Your task to perform on an android device: empty trash in google photos Image 0: 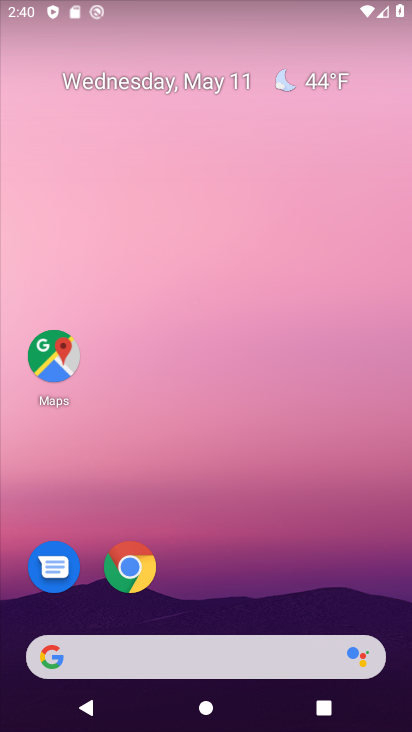
Step 0: drag from (226, 473) to (245, 39)
Your task to perform on an android device: empty trash in google photos Image 1: 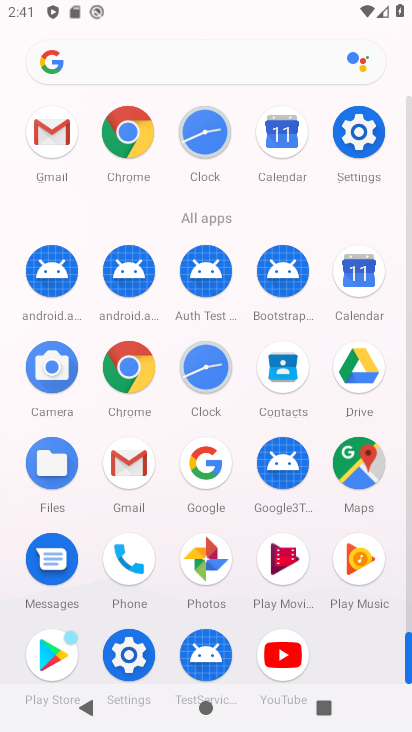
Step 1: drag from (14, 447) to (7, 155)
Your task to perform on an android device: empty trash in google photos Image 2: 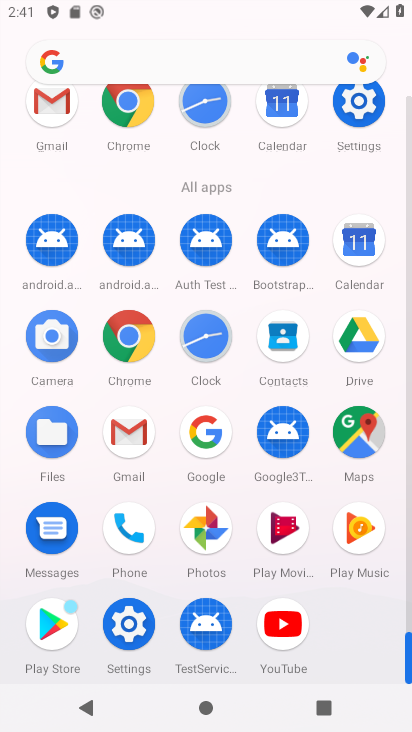
Step 2: click (202, 525)
Your task to perform on an android device: empty trash in google photos Image 3: 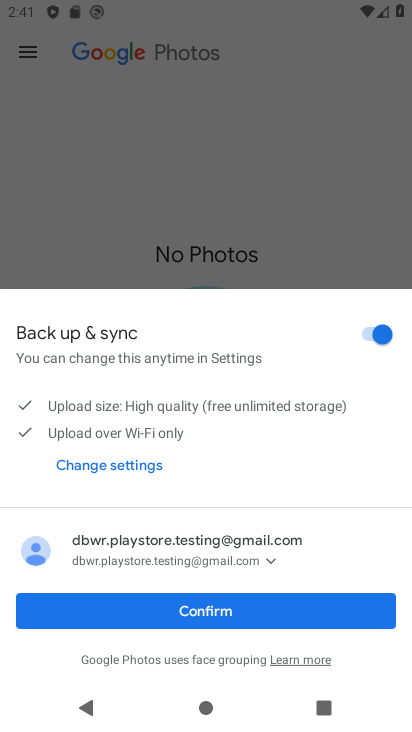
Step 3: click (184, 598)
Your task to perform on an android device: empty trash in google photos Image 4: 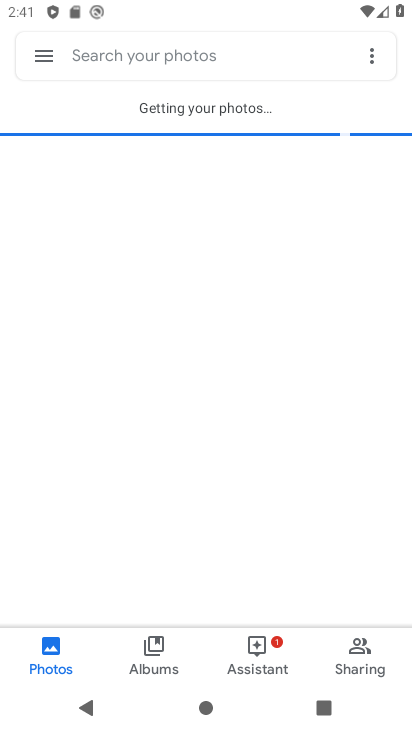
Step 4: click (45, 50)
Your task to perform on an android device: empty trash in google photos Image 5: 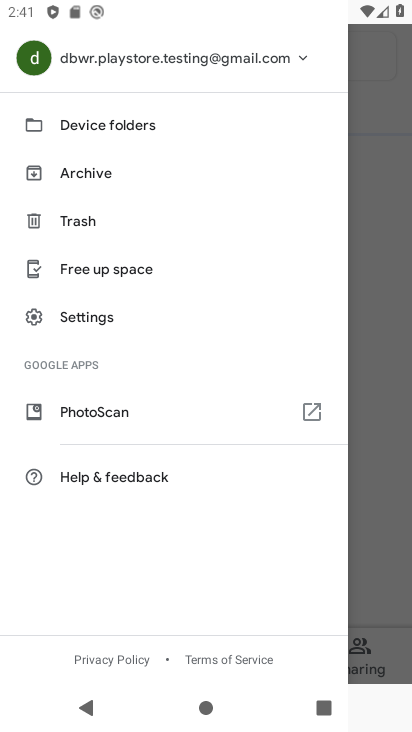
Step 5: click (106, 217)
Your task to perform on an android device: empty trash in google photos Image 6: 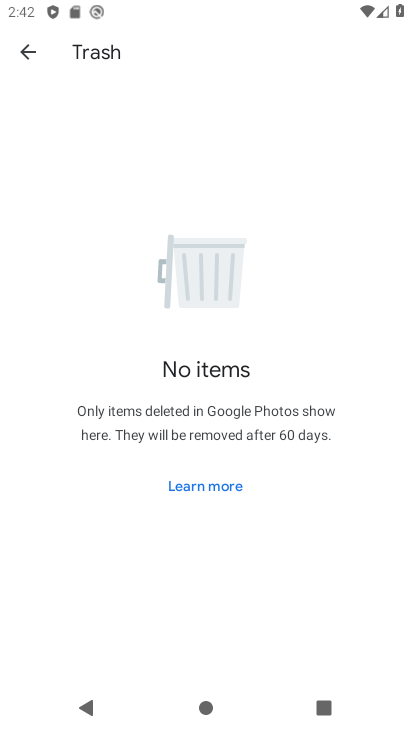
Step 6: task complete